Your task to perform on an android device: set the timer Image 0: 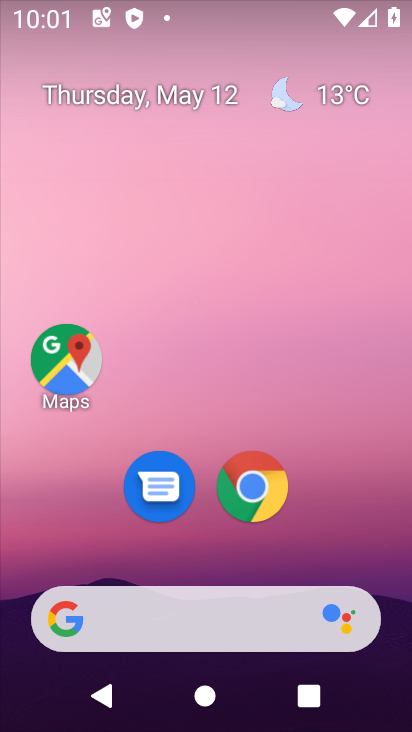
Step 0: drag from (370, 517) to (301, 216)
Your task to perform on an android device: set the timer Image 1: 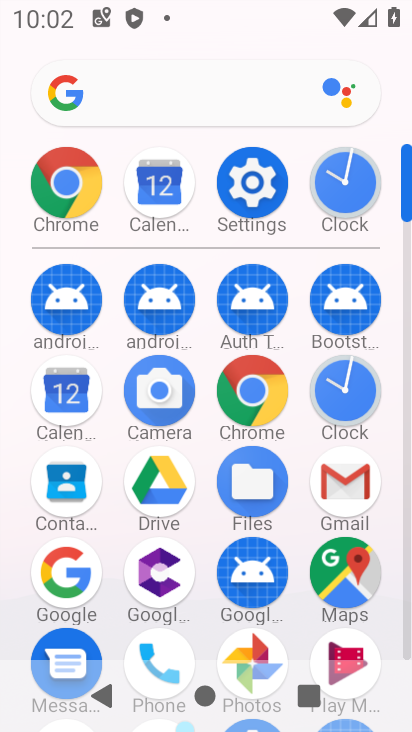
Step 1: click (360, 408)
Your task to perform on an android device: set the timer Image 2: 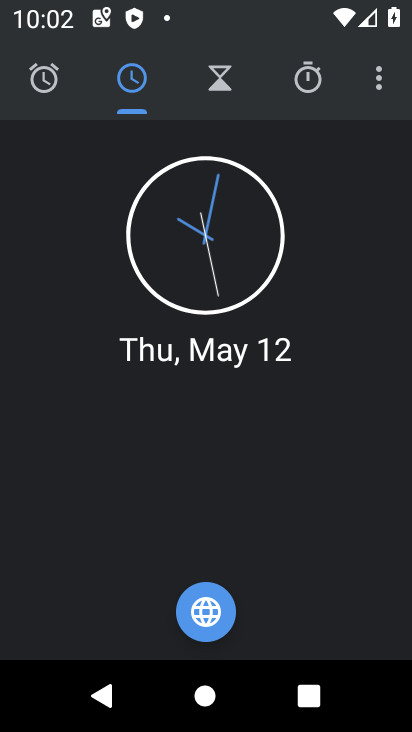
Step 2: click (381, 87)
Your task to perform on an android device: set the timer Image 3: 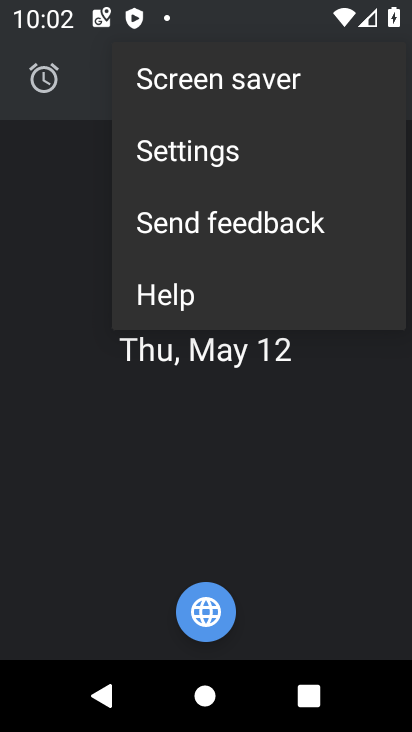
Step 3: click (93, 136)
Your task to perform on an android device: set the timer Image 4: 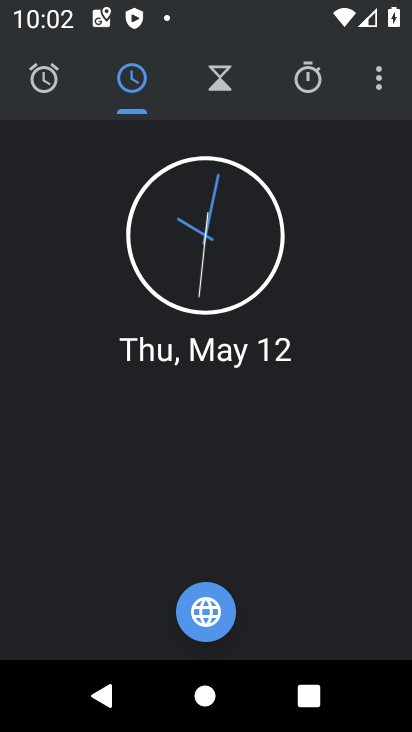
Step 4: click (216, 92)
Your task to perform on an android device: set the timer Image 5: 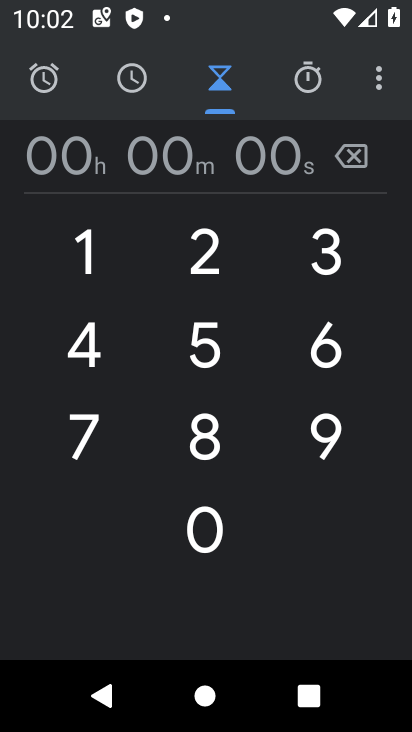
Step 5: click (202, 257)
Your task to perform on an android device: set the timer Image 6: 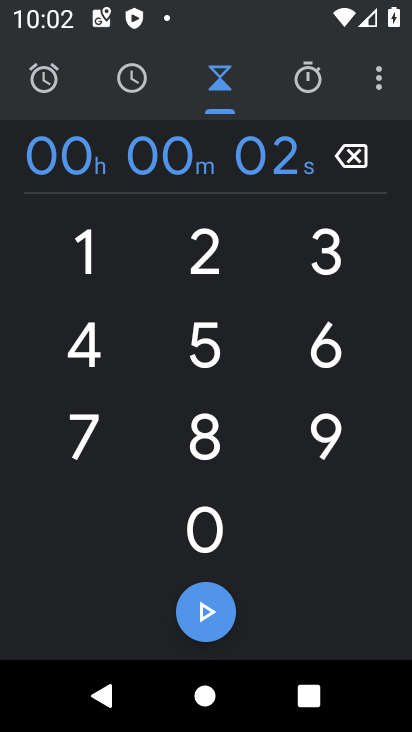
Step 6: click (211, 347)
Your task to perform on an android device: set the timer Image 7: 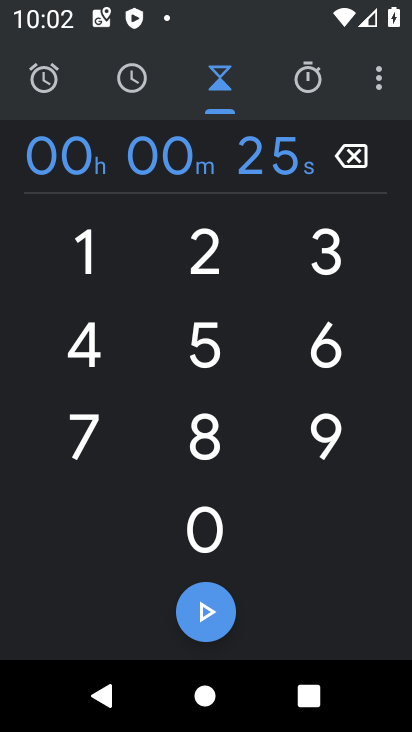
Step 7: click (208, 262)
Your task to perform on an android device: set the timer Image 8: 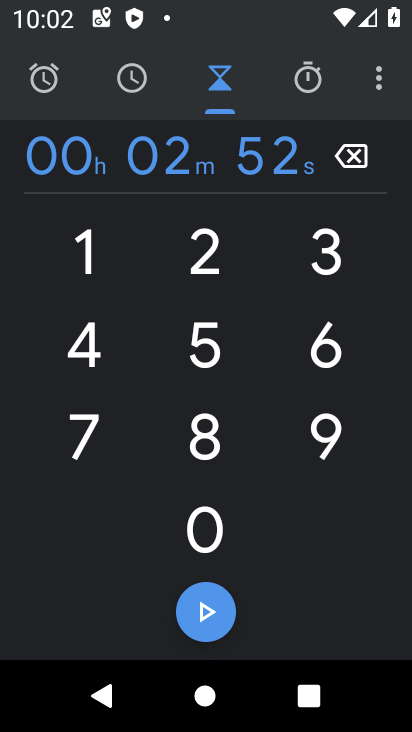
Step 8: click (214, 344)
Your task to perform on an android device: set the timer Image 9: 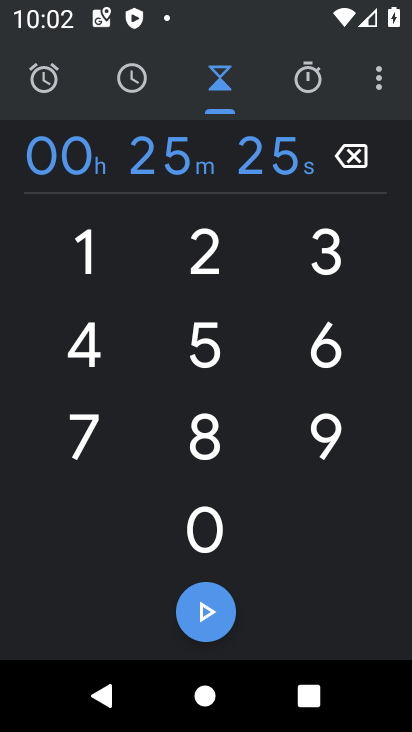
Step 9: click (218, 268)
Your task to perform on an android device: set the timer Image 10: 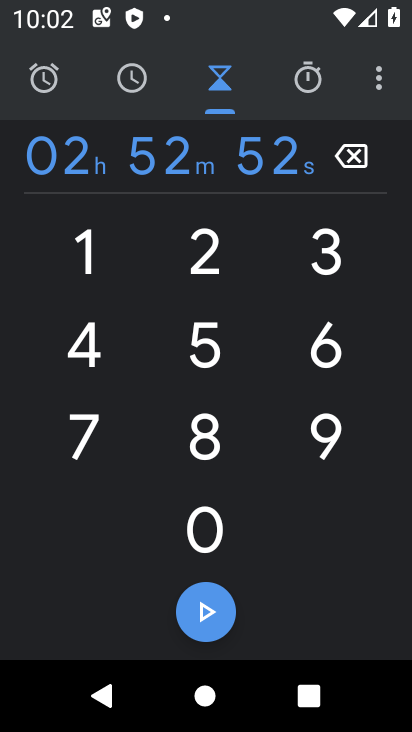
Step 10: click (218, 330)
Your task to perform on an android device: set the timer Image 11: 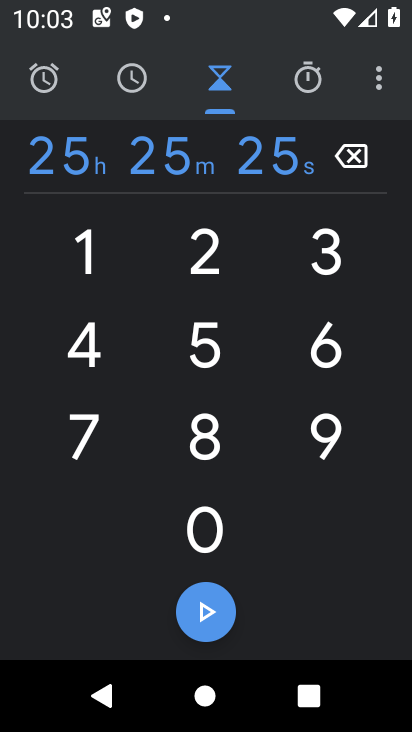
Step 11: task complete